Your task to perform on an android device: Open Android settings Image 0: 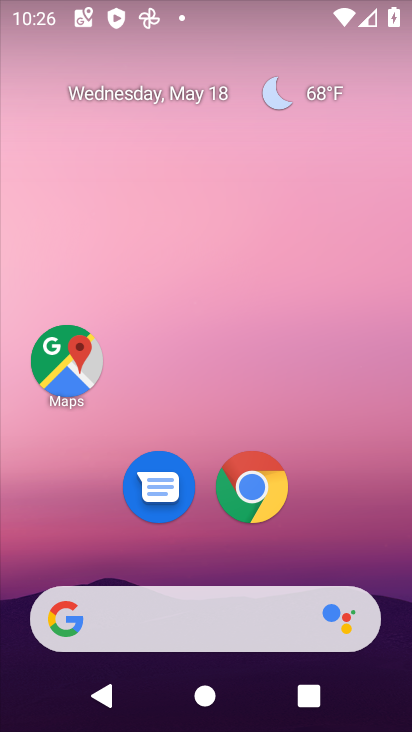
Step 0: drag from (333, 533) to (329, 62)
Your task to perform on an android device: Open Android settings Image 1: 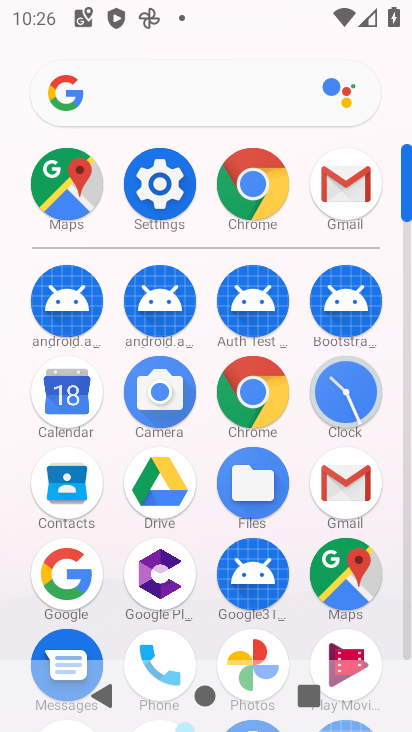
Step 1: click (145, 196)
Your task to perform on an android device: Open Android settings Image 2: 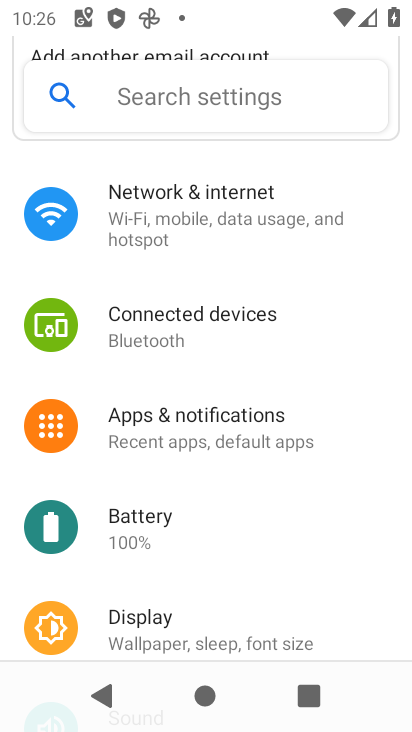
Step 2: task complete